Your task to perform on an android device: check out phone information Image 0: 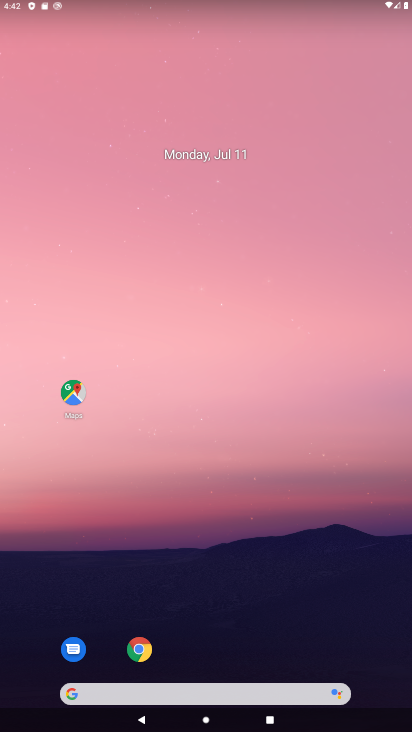
Step 0: drag from (300, 627) to (290, 106)
Your task to perform on an android device: check out phone information Image 1: 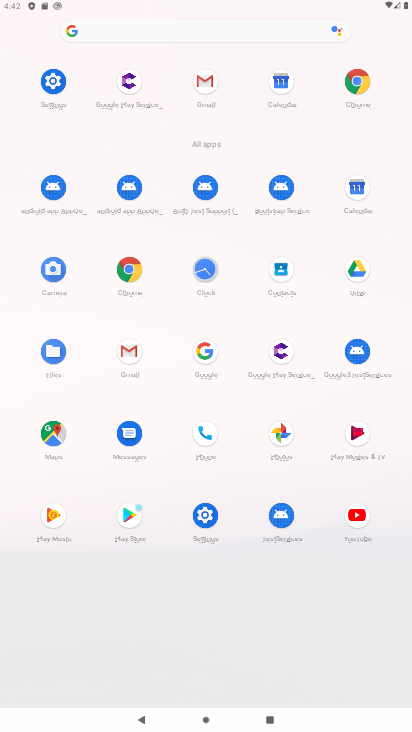
Step 1: click (206, 432)
Your task to perform on an android device: check out phone information Image 2: 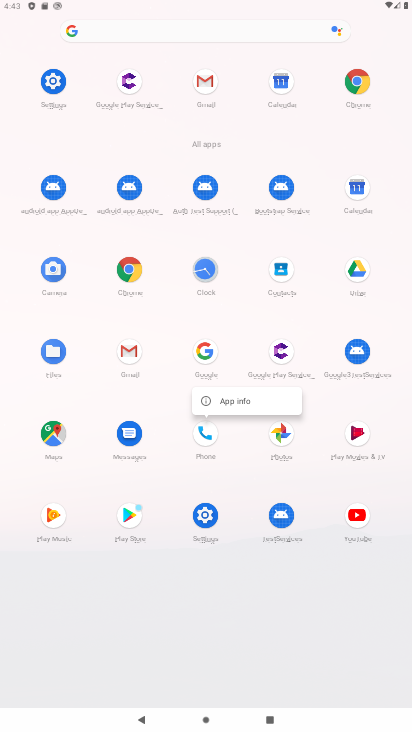
Step 2: click (222, 402)
Your task to perform on an android device: check out phone information Image 3: 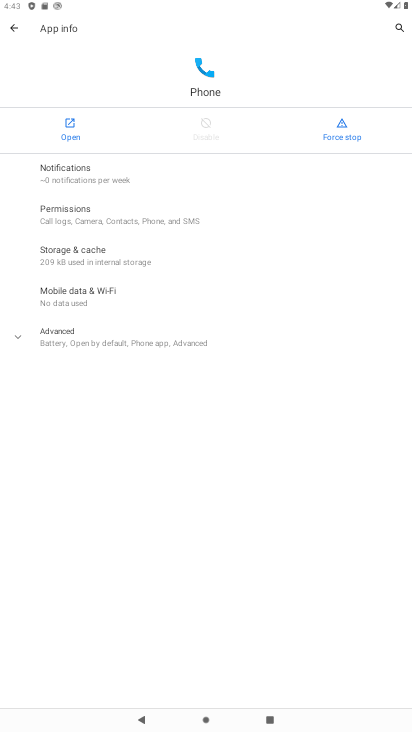
Step 3: click (61, 349)
Your task to perform on an android device: check out phone information Image 4: 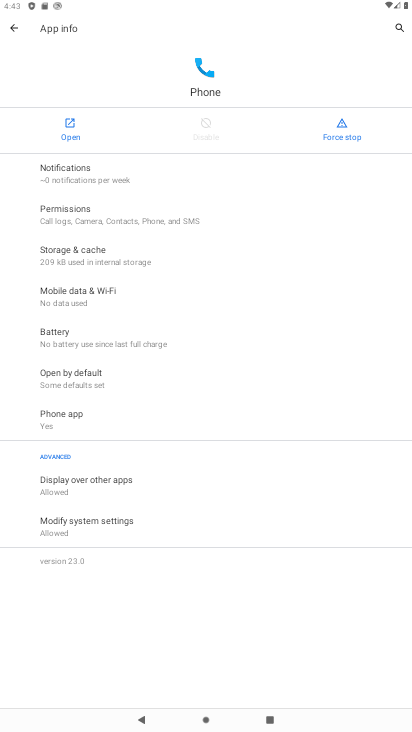
Step 4: task complete